Your task to perform on an android device: turn on javascript in the chrome app Image 0: 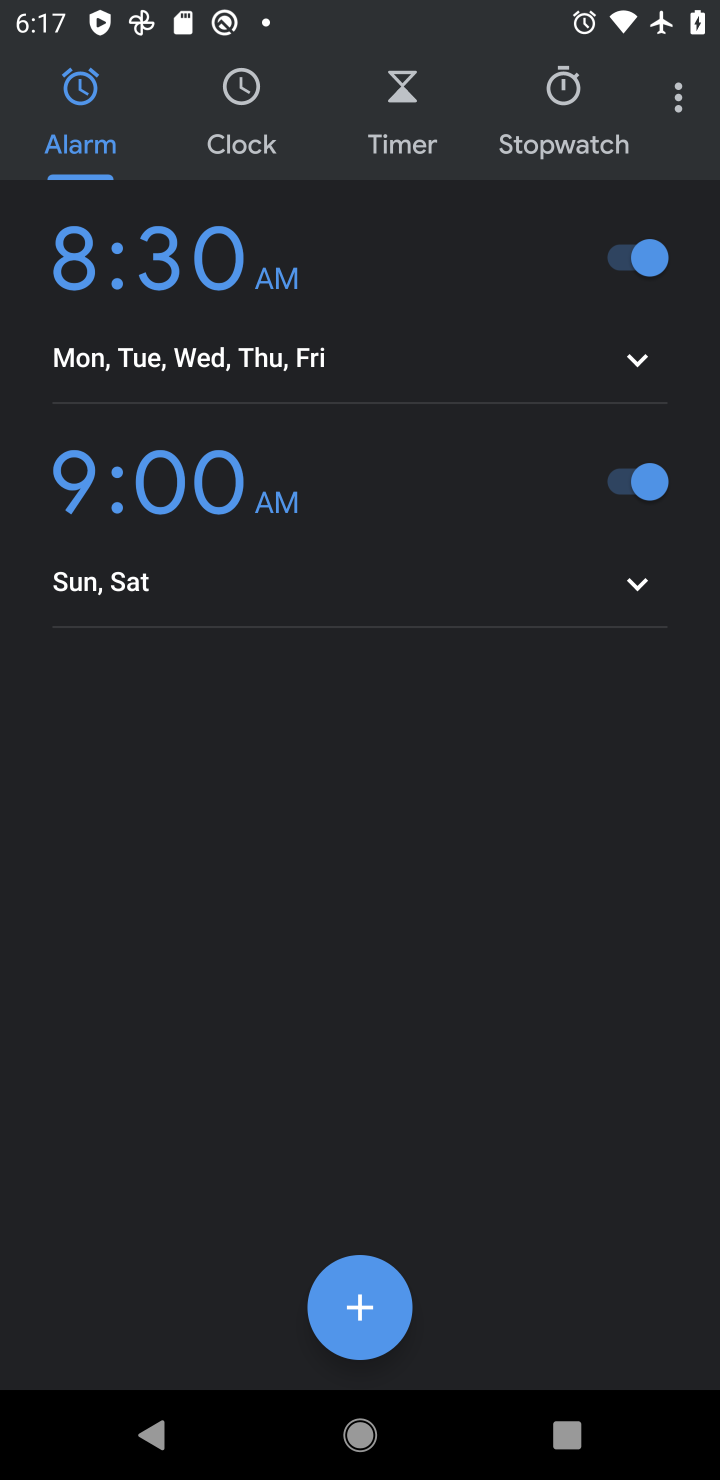
Step 0: press home button
Your task to perform on an android device: turn on javascript in the chrome app Image 1: 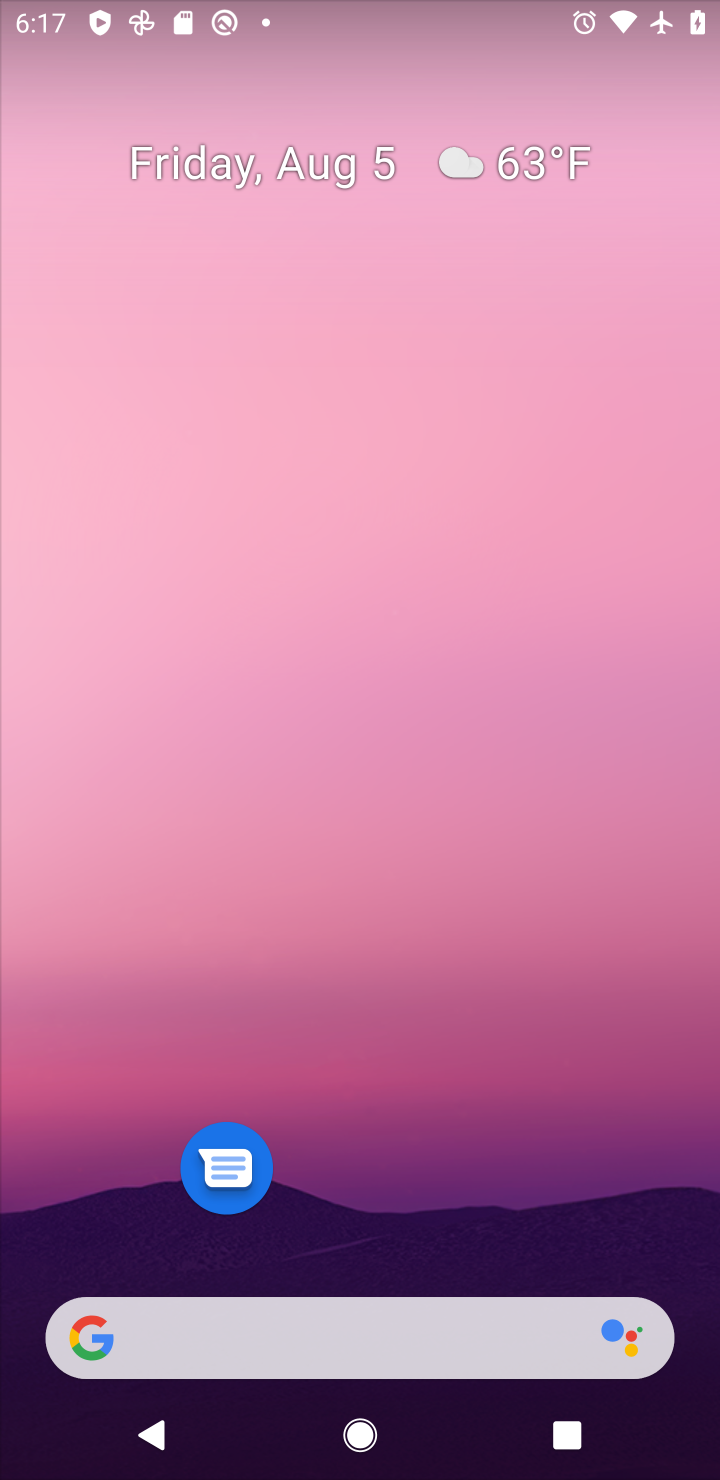
Step 1: drag from (454, 1285) to (482, 605)
Your task to perform on an android device: turn on javascript in the chrome app Image 2: 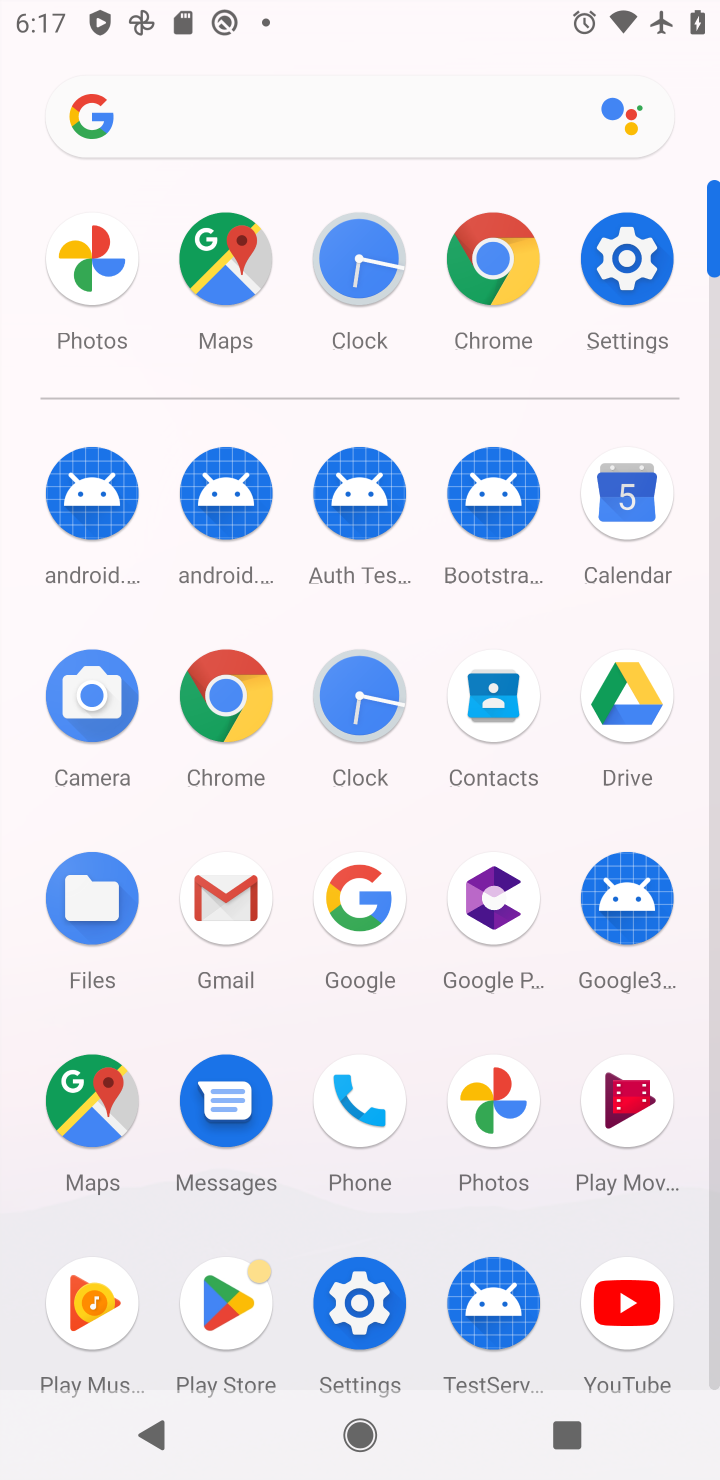
Step 2: click (493, 266)
Your task to perform on an android device: turn on javascript in the chrome app Image 3: 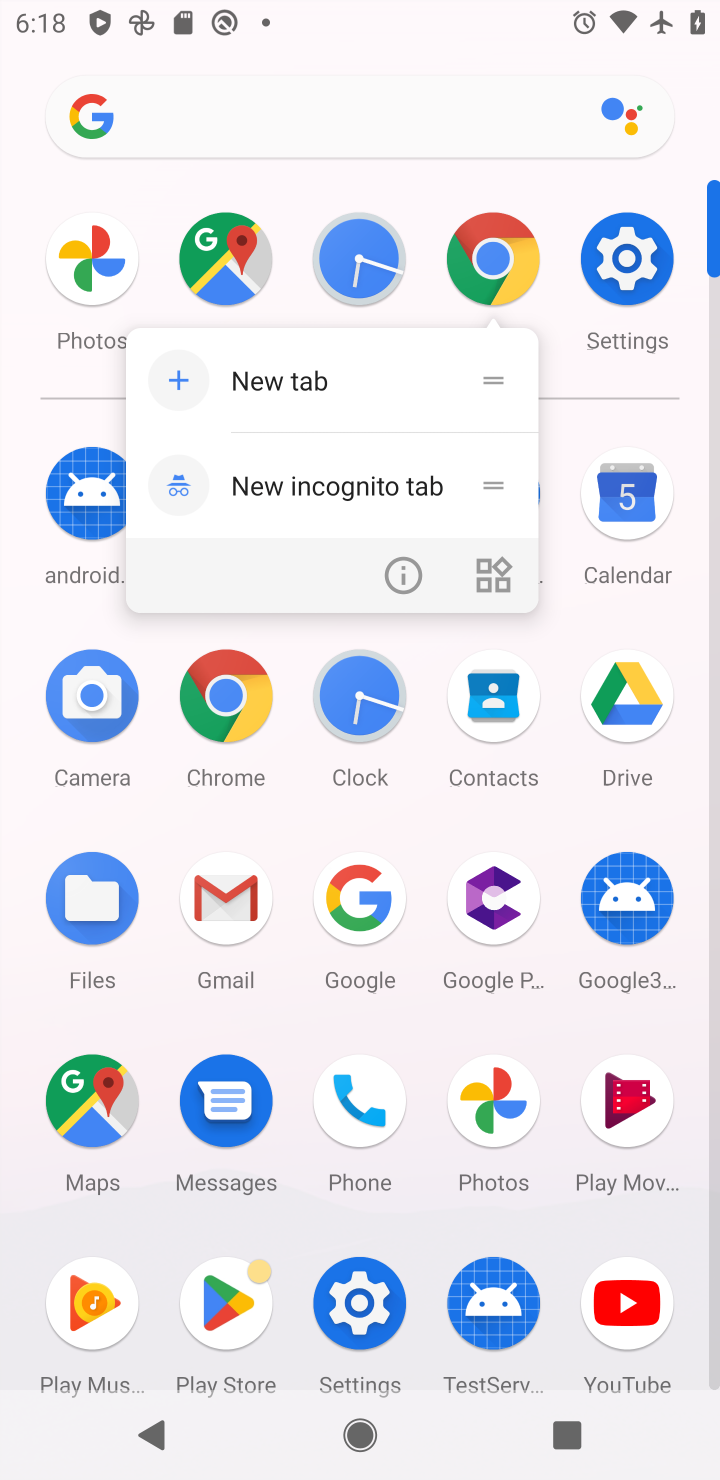
Step 3: click (493, 266)
Your task to perform on an android device: turn on javascript in the chrome app Image 4: 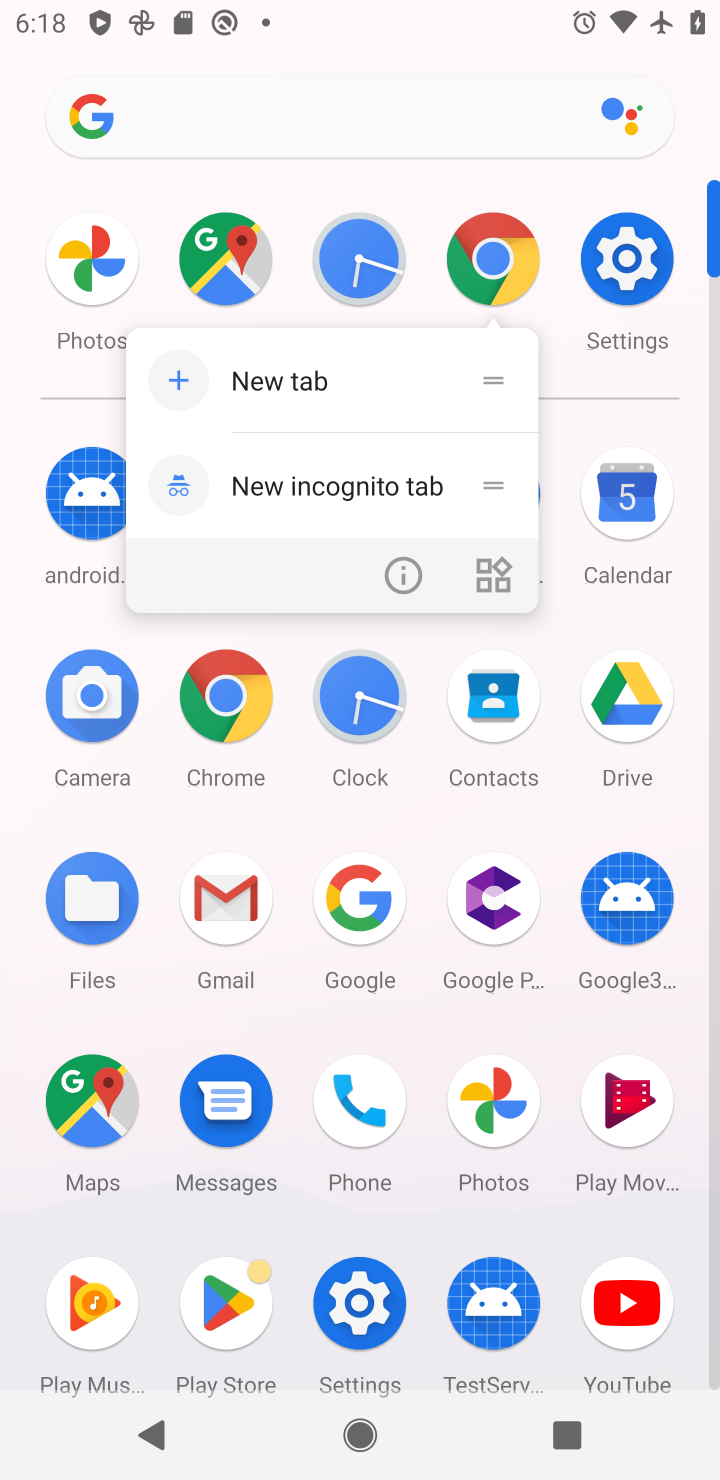
Step 4: click (494, 278)
Your task to perform on an android device: turn on javascript in the chrome app Image 5: 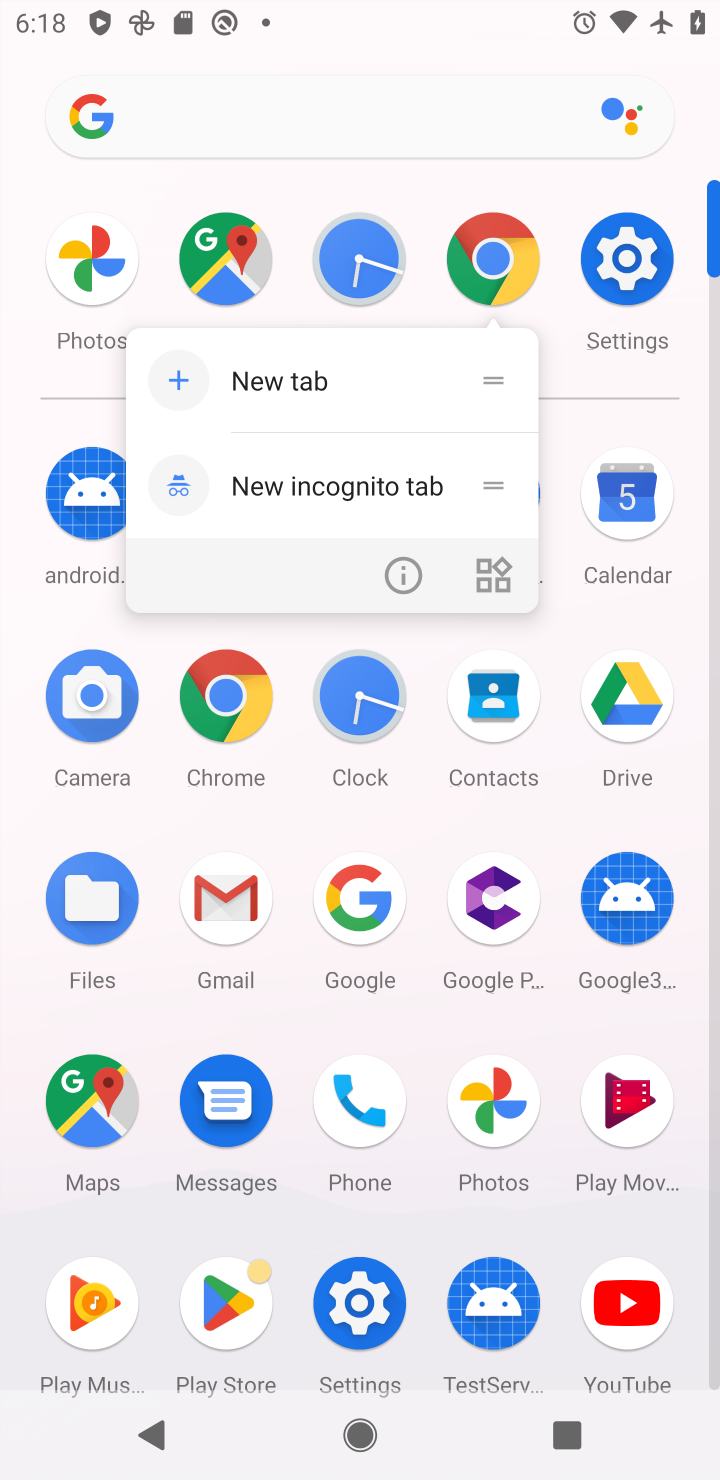
Step 5: click (491, 270)
Your task to perform on an android device: turn on javascript in the chrome app Image 6: 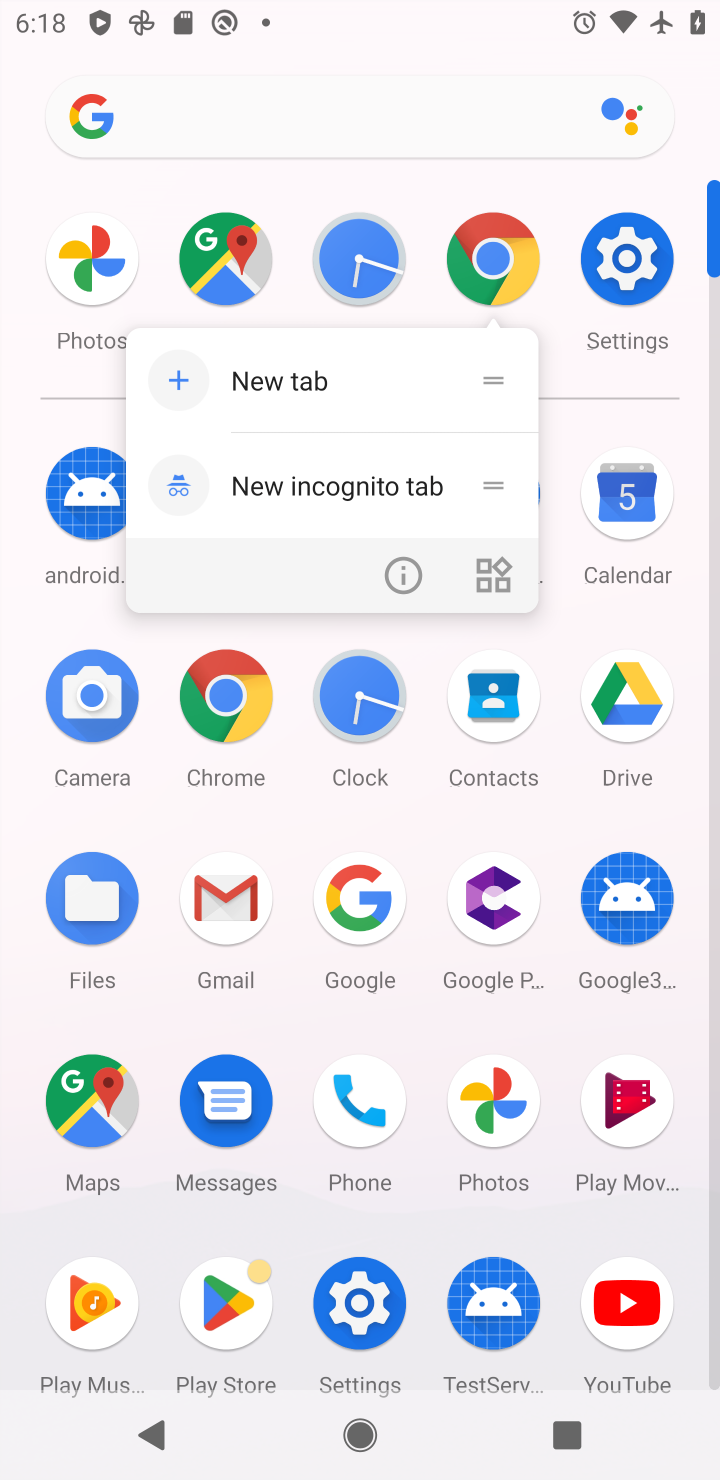
Step 6: click (503, 264)
Your task to perform on an android device: turn on javascript in the chrome app Image 7: 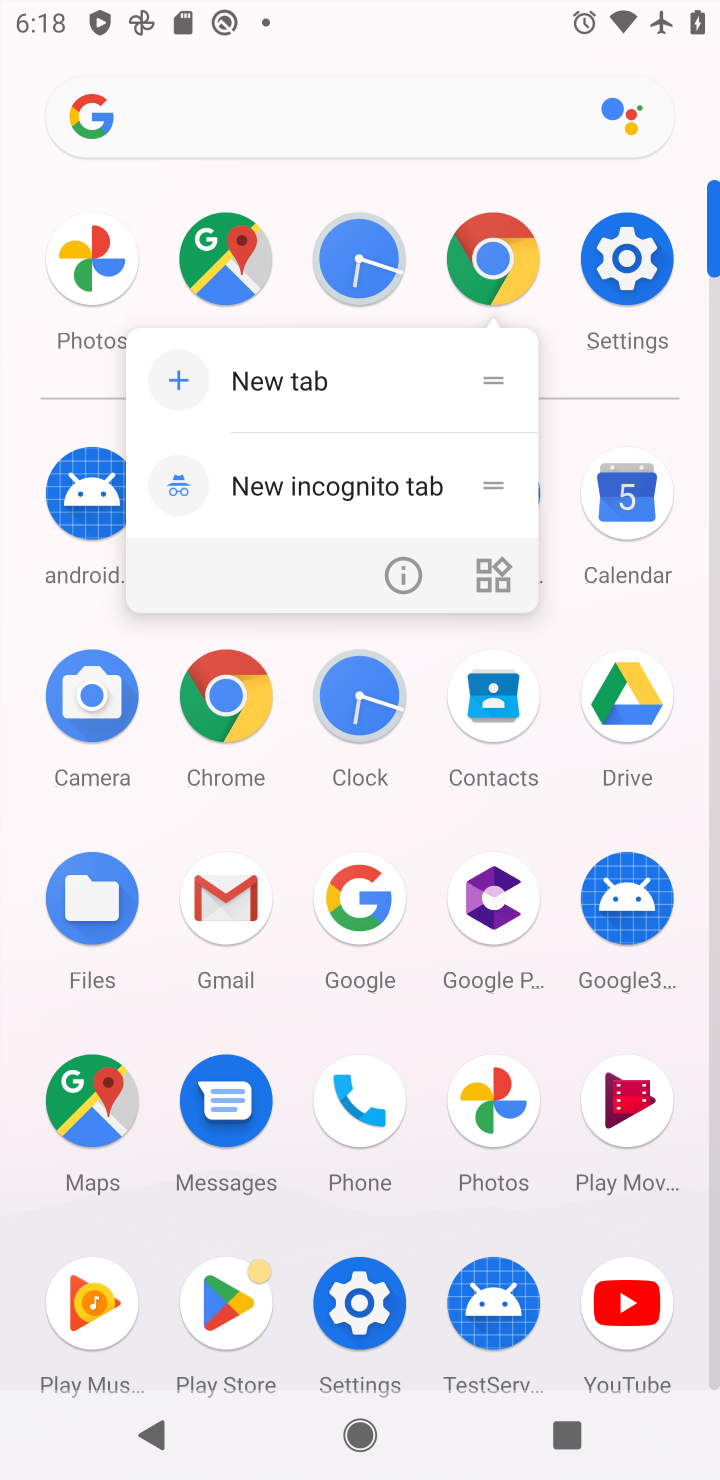
Step 7: click (502, 260)
Your task to perform on an android device: turn on javascript in the chrome app Image 8: 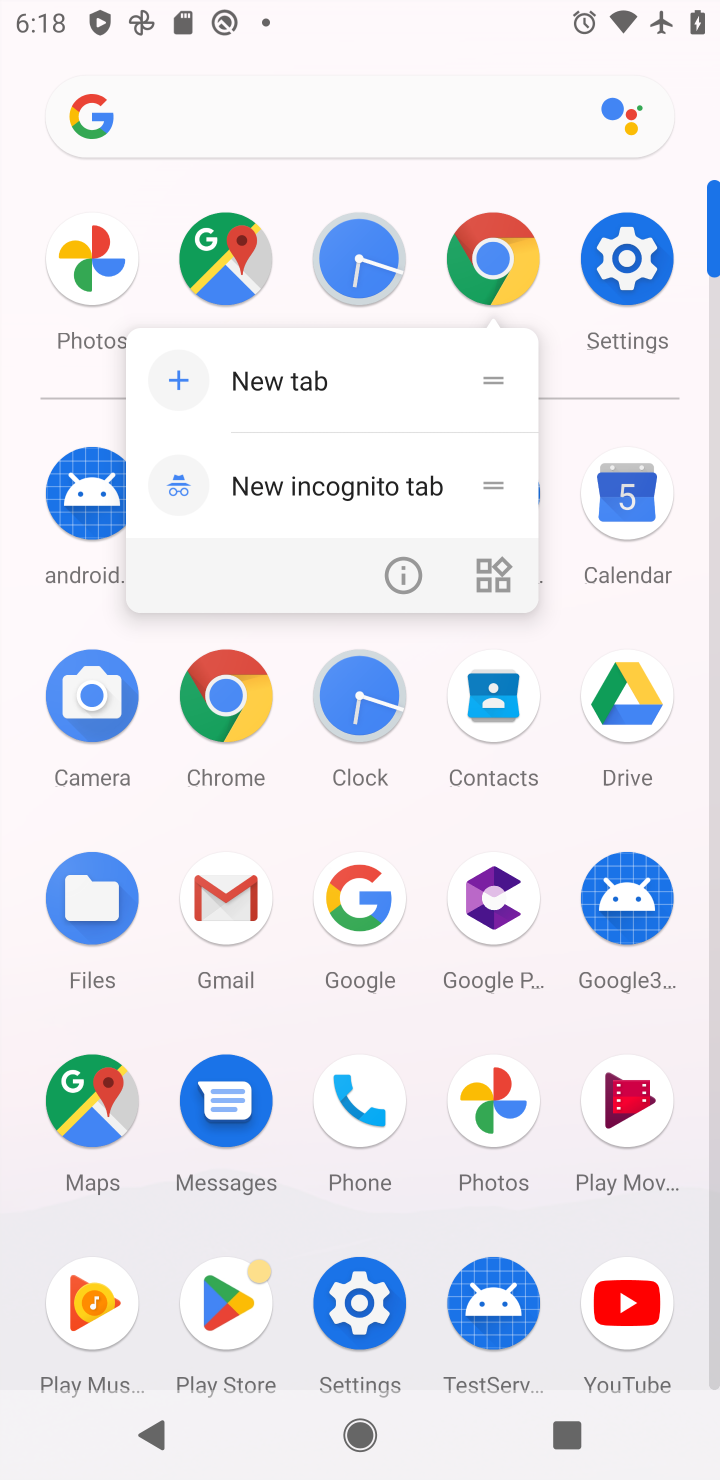
Step 8: click (236, 684)
Your task to perform on an android device: turn on javascript in the chrome app Image 9: 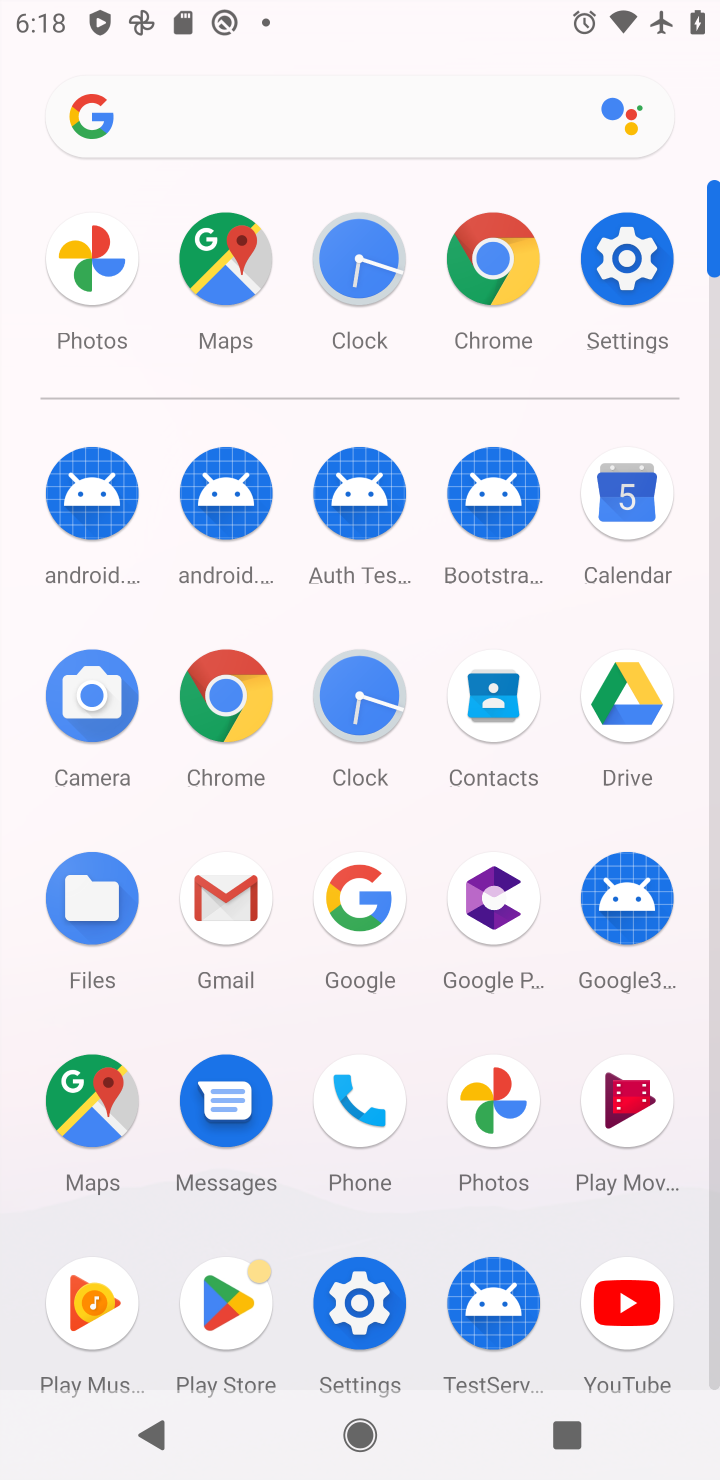
Step 9: click (218, 695)
Your task to perform on an android device: turn on javascript in the chrome app Image 10: 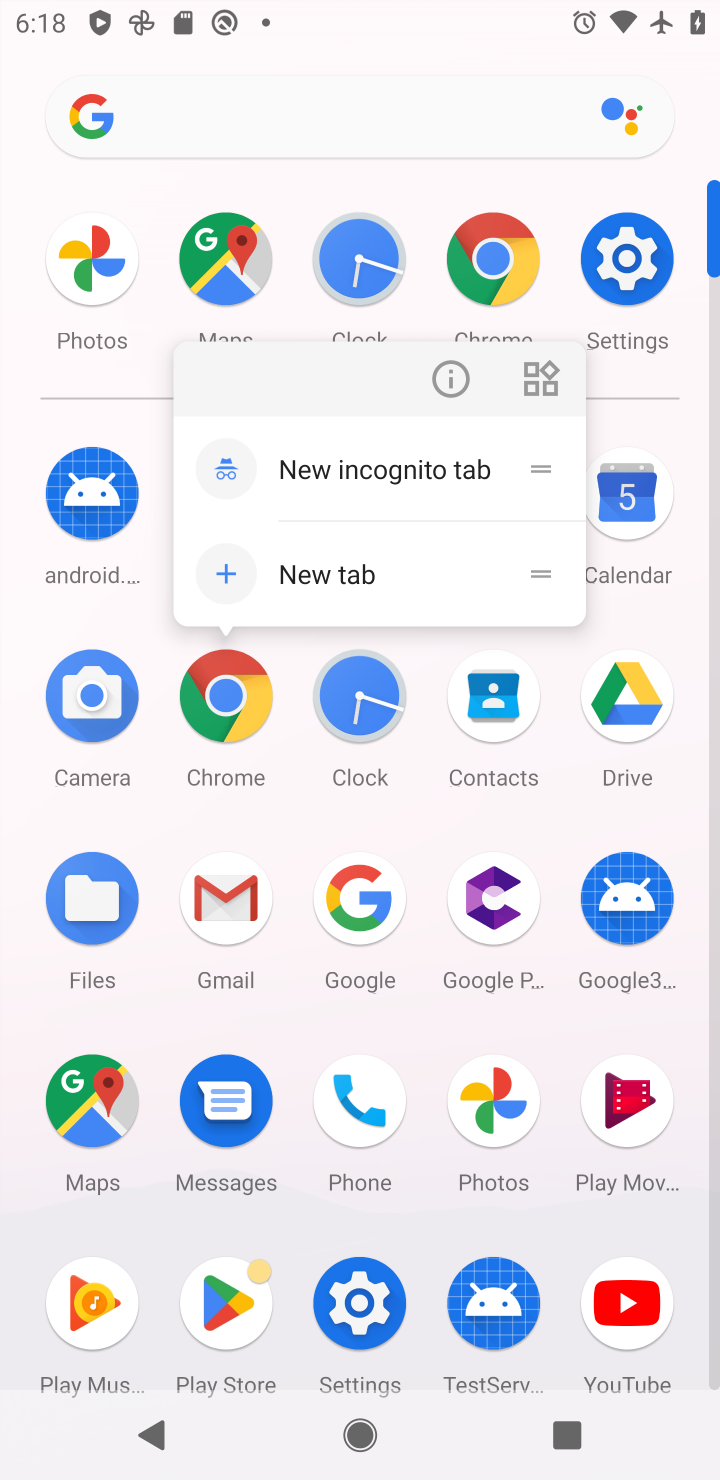
Step 10: click (218, 695)
Your task to perform on an android device: turn on javascript in the chrome app Image 11: 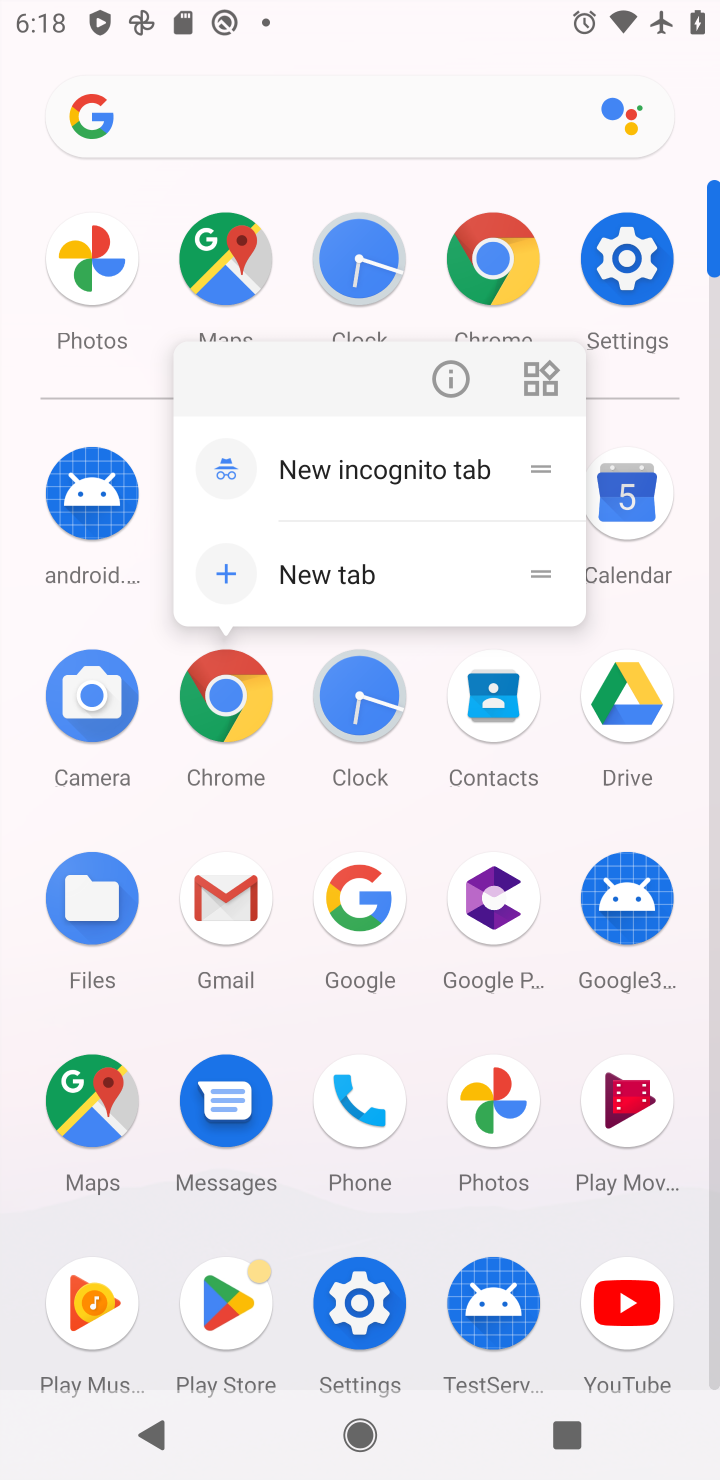
Step 11: click (213, 699)
Your task to perform on an android device: turn on javascript in the chrome app Image 12: 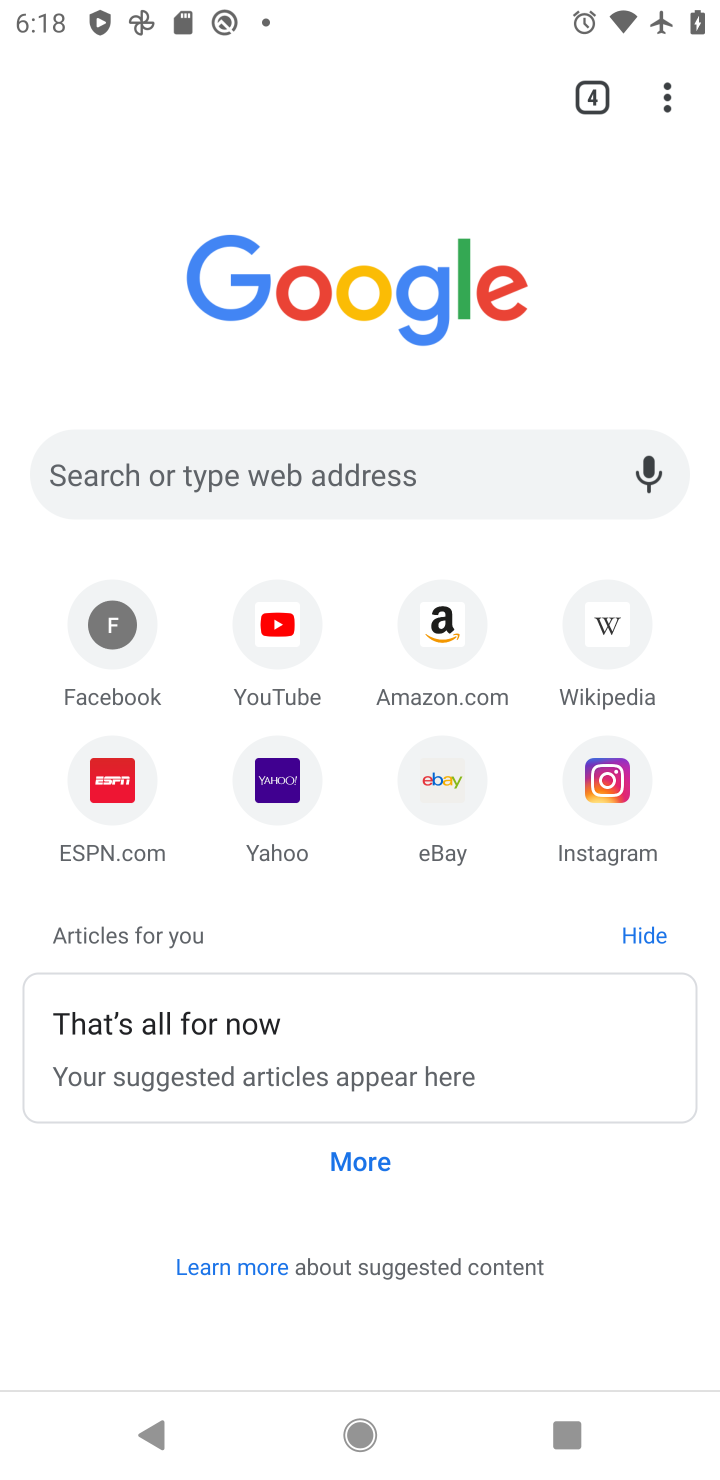
Step 12: drag from (673, 95) to (337, 829)
Your task to perform on an android device: turn on javascript in the chrome app Image 13: 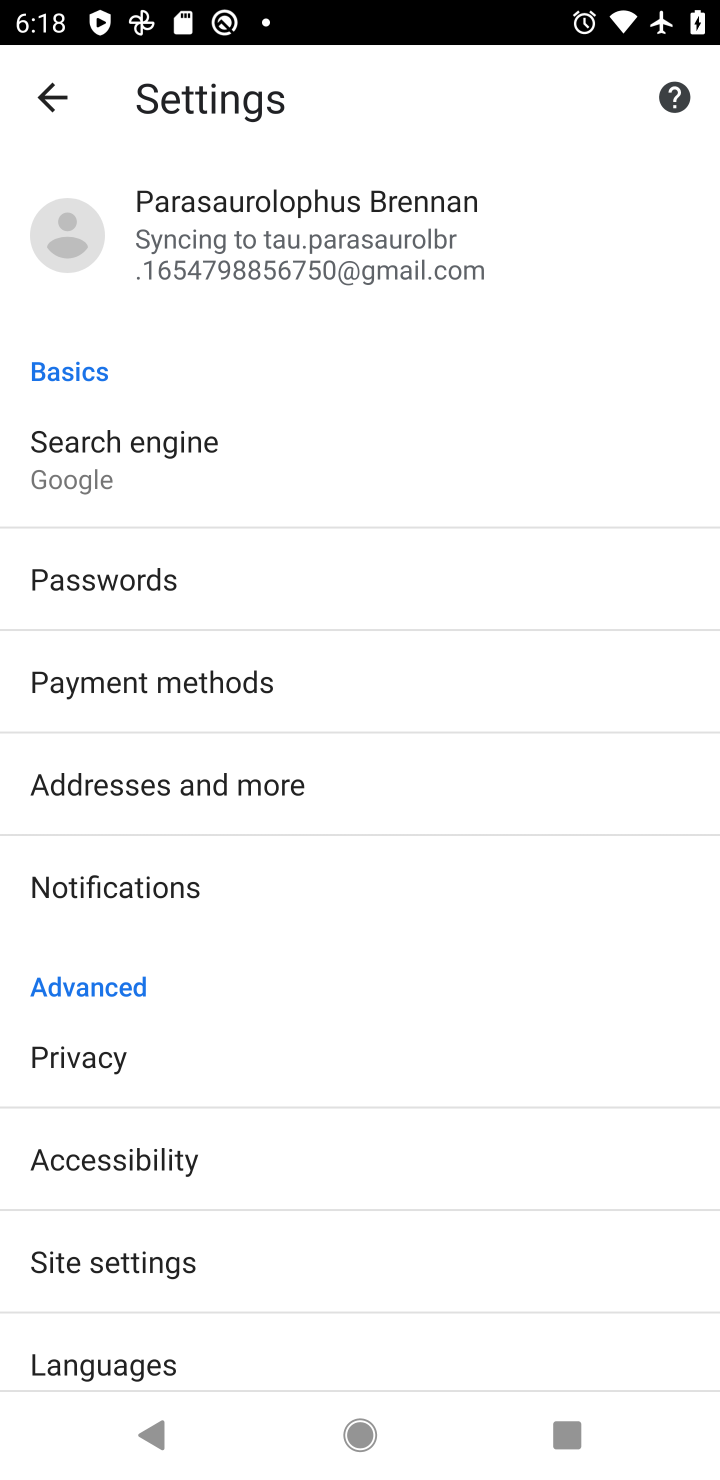
Step 13: click (108, 1257)
Your task to perform on an android device: turn on javascript in the chrome app Image 14: 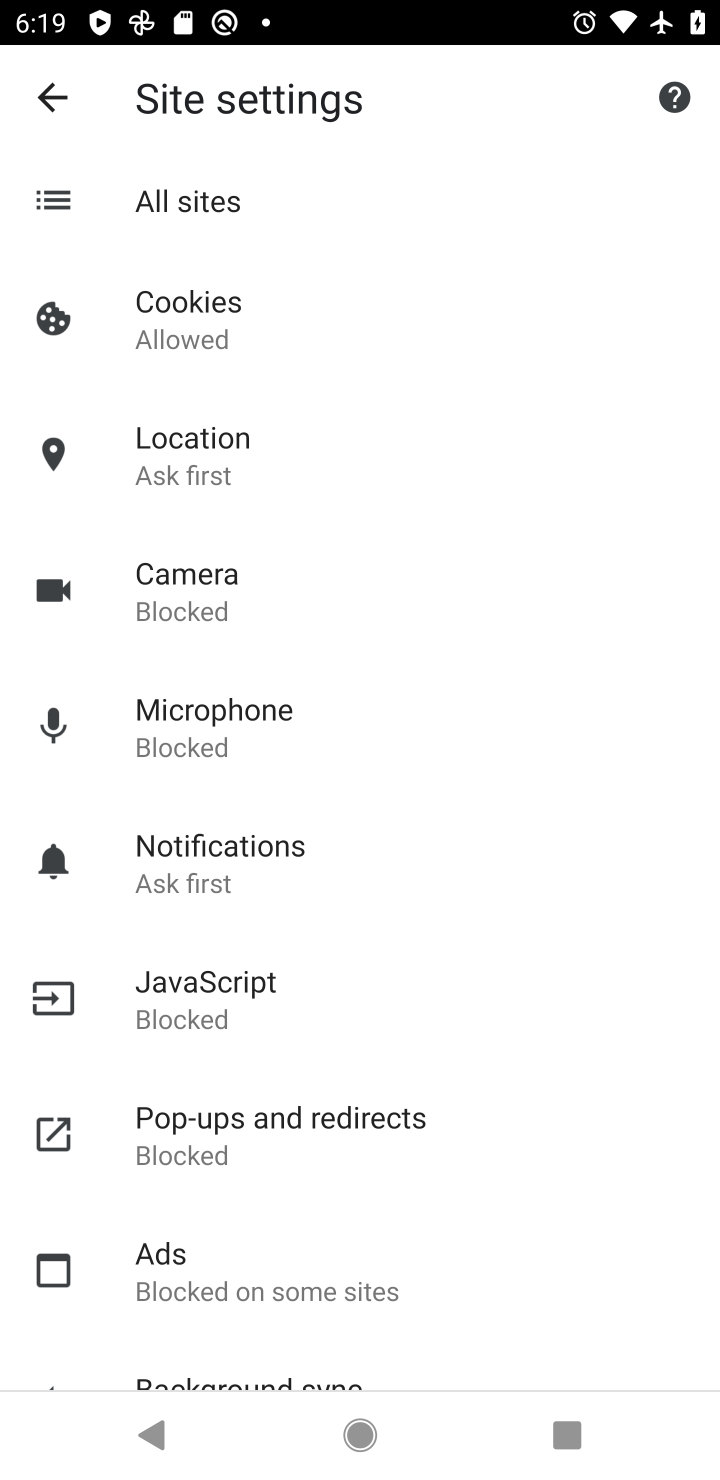
Step 14: click (177, 998)
Your task to perform on an android device: turn on javascript in the chrome app Image 15: 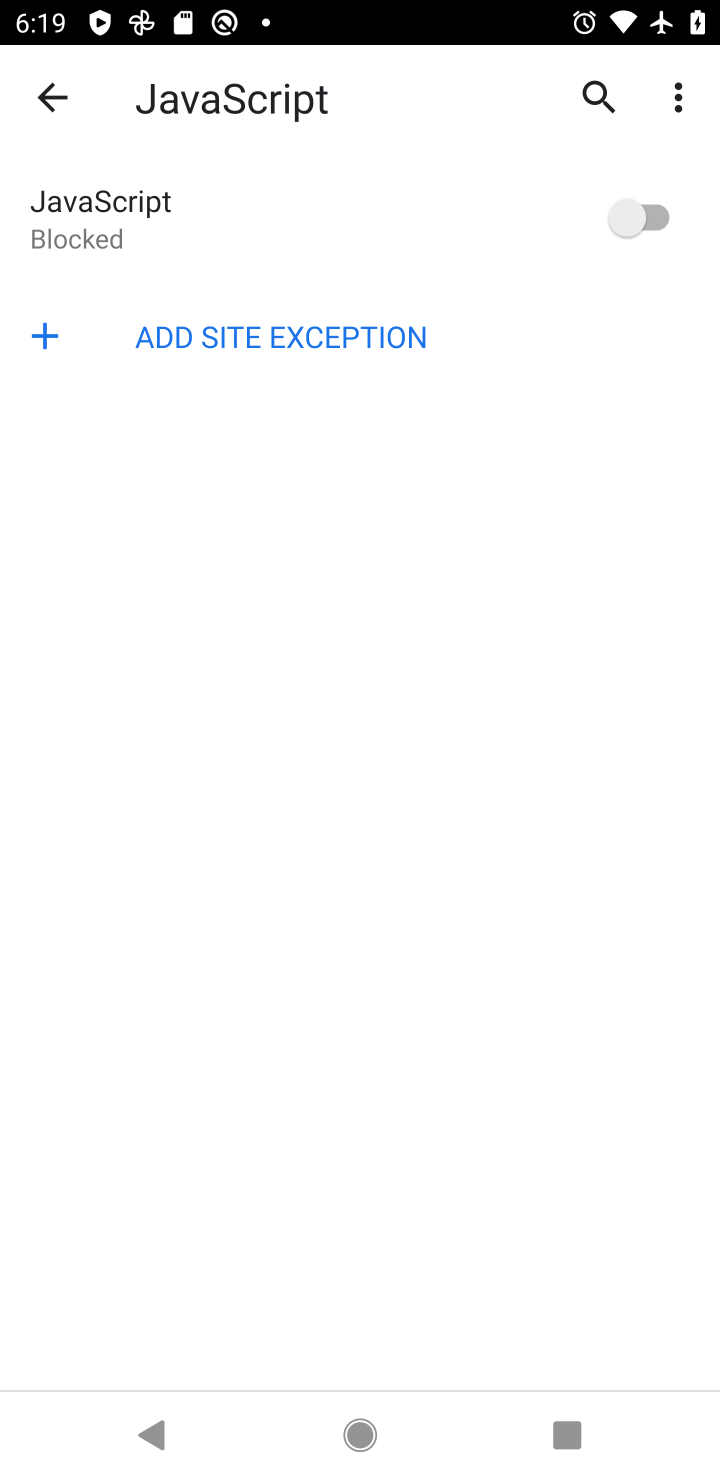
Step 15: click (628, 216)
Your task to perform on an android device: turn on javascript in the chrome app Image 16: 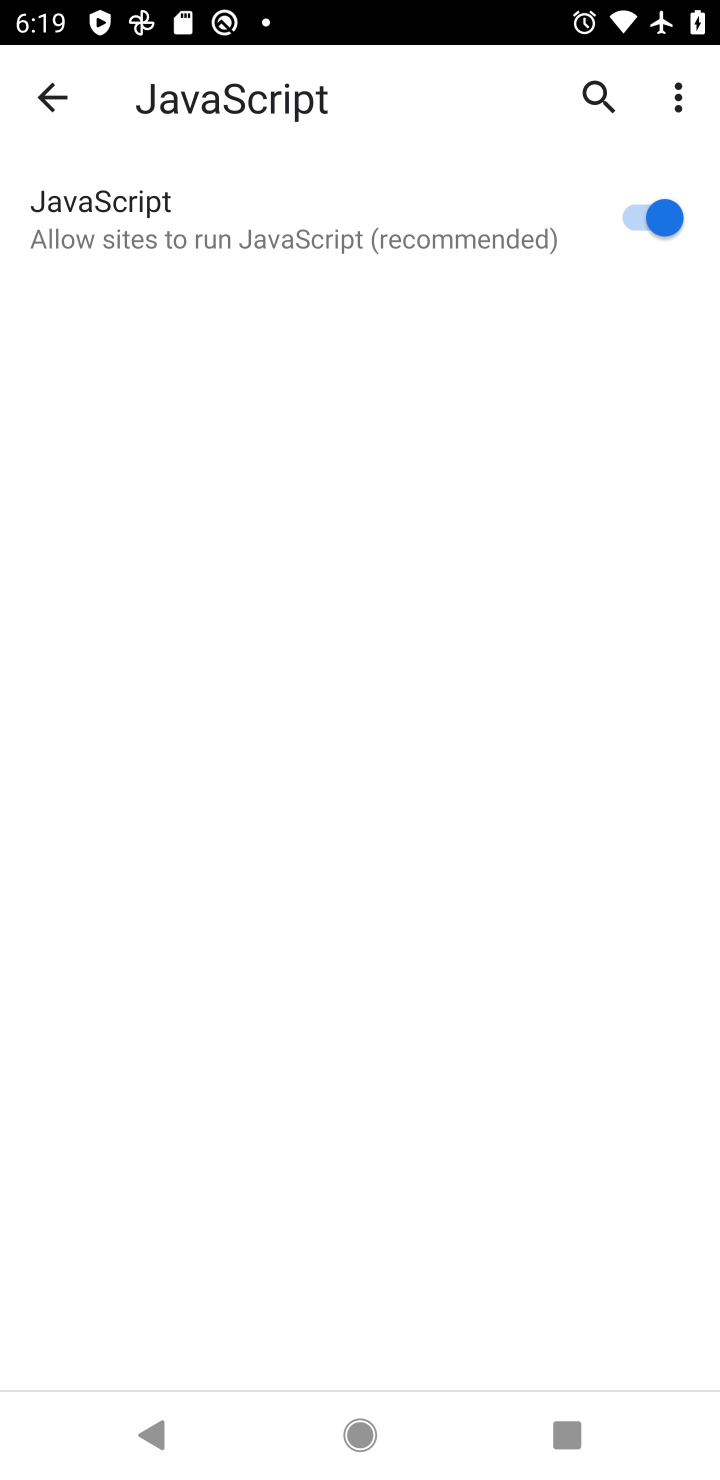
Step 16: task complete